Your task to perform on an android device: delete browsing data in the chrome app Image 0: 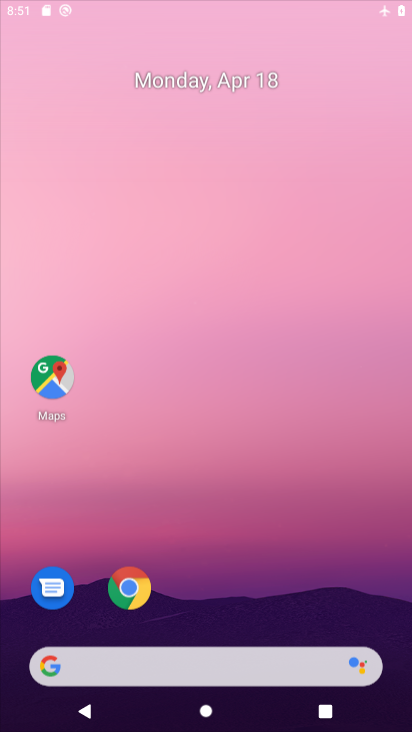
Step 0: drag from (291, 226) to (277, 100)
Your task to perform on an android device: delete browsing data in the chrome app Image 1: 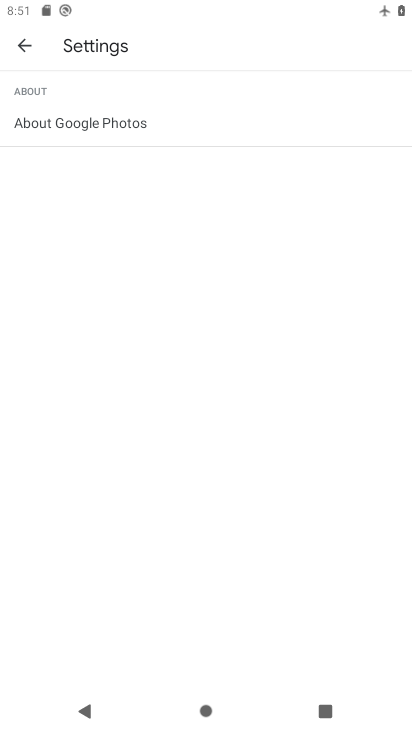
Step 1: press home button
Your task to perform on an android device: delete browsing data in the chrome app Image 2: 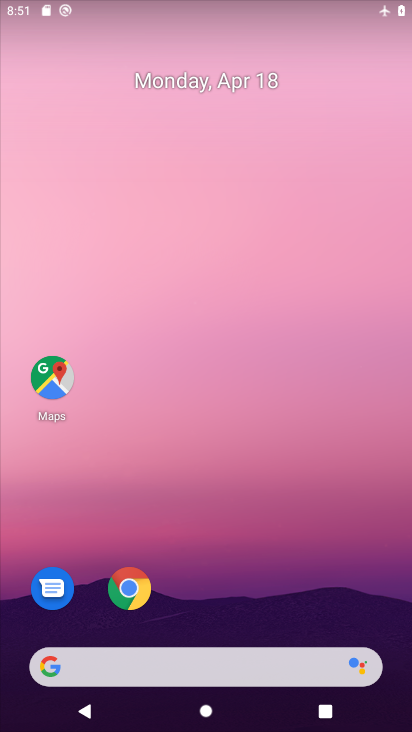
Step 2: drag from (241, 556) to (252, 84)
Your task to perform on an android device: delete browsing data in the chrome app Image 3: 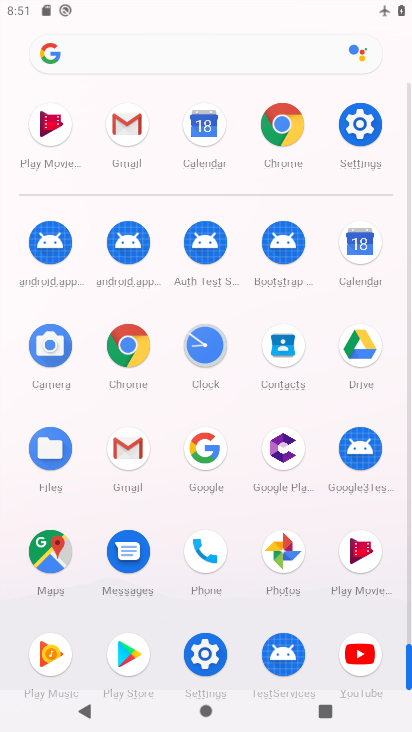
Step 3: click (127, 355)
Your task to perform on an android device: delete browsing data in the chrome app Image 4: 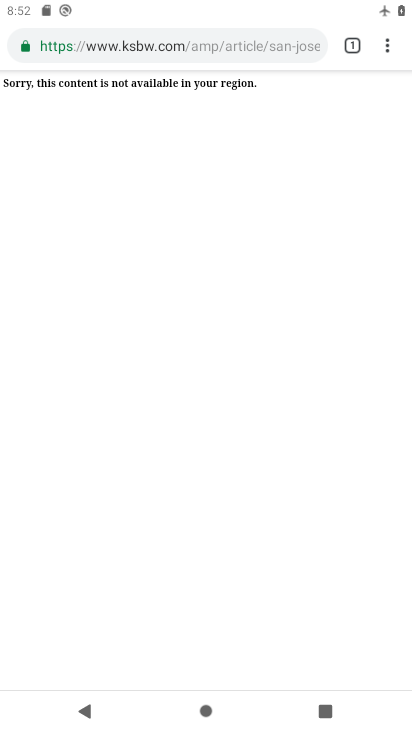
Step 4: press back button
Your task to perform on an android device: delete browsing data in the chrome app Image 5: 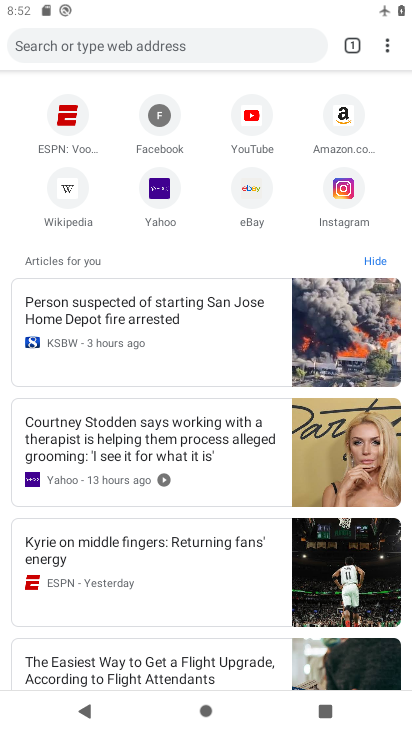
Step 5: click (387, 39)
Your task to perform on an android device: delete browsing data in the chrome app Image 6: 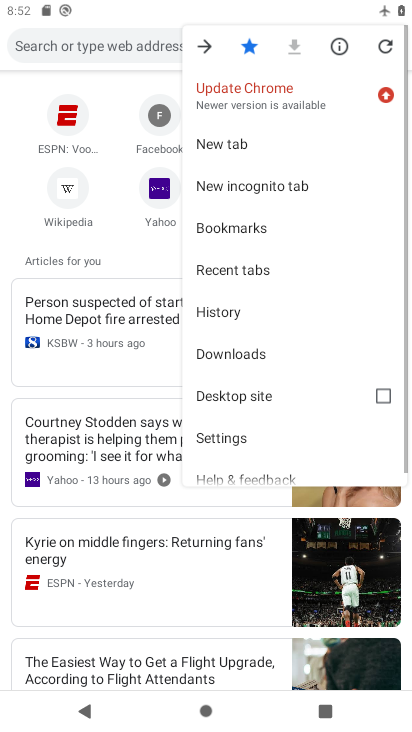
Step 6: click (247, 303)
Your task to perform on an android device: delete browsing data in the chrome app Image 7: 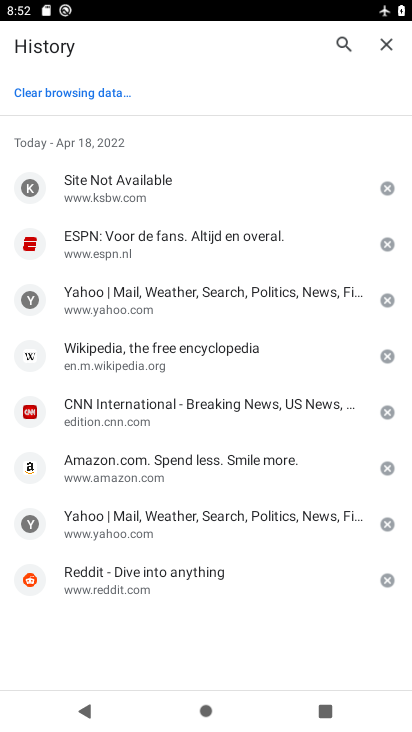
Step 7: click (61, 92)
Your task to perform on an android device: delete browsing data in the chrome app Image 8: 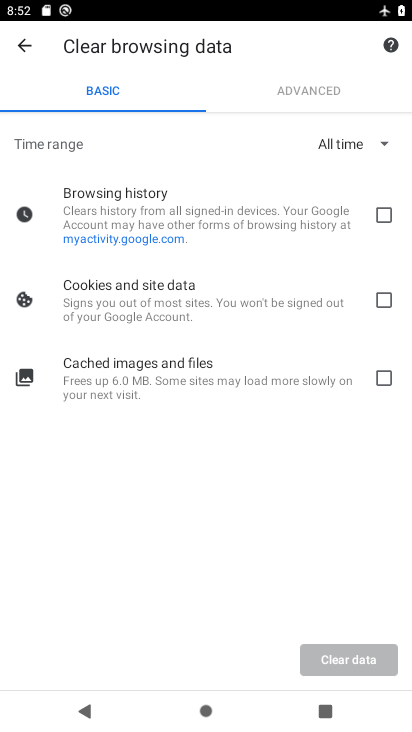
Step 8: click (339, 652)
Your task to perform on an android device: delete browsing data in the chrome app Image 9: 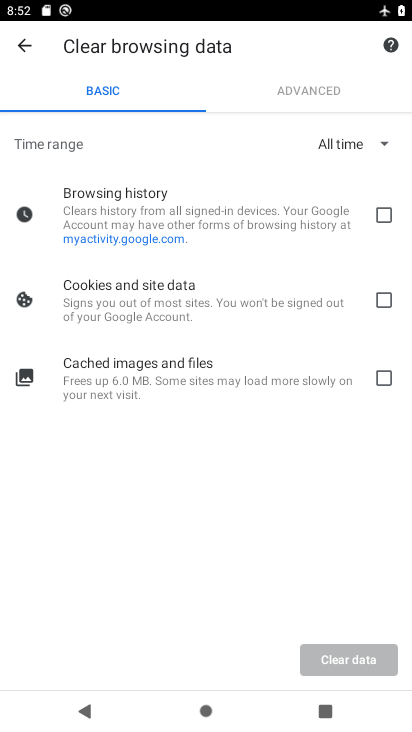
Step 9: click (343, 218)
Your task to perform on an android device: delete browsing data in the chrome app Image 10: 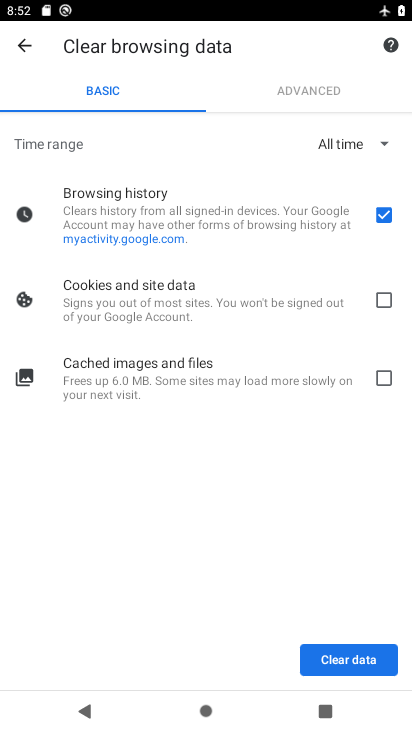
Step 10: click (343, 283)
Your task to perform on an android device: delete browsing data in the chrome app Image 11: 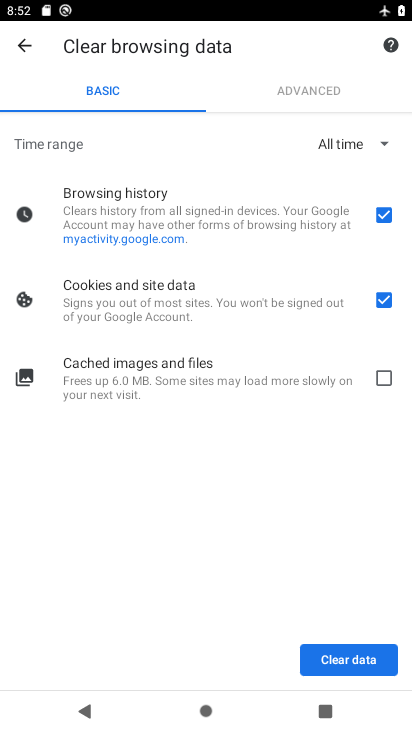
Step 11: click (335, 651)
Your task to perform on an android device: delete browsing data in the chrome app Image 12: 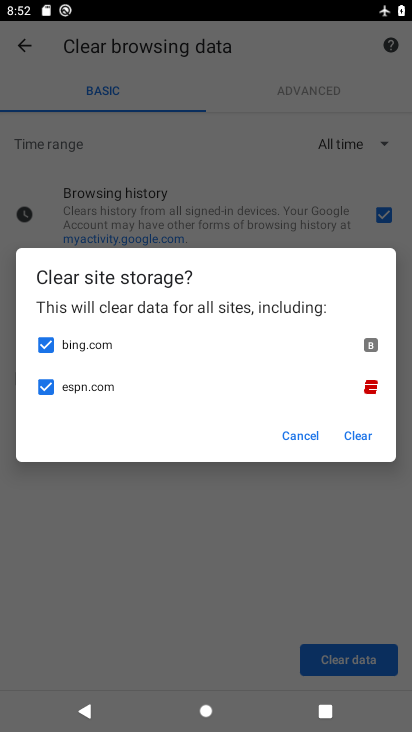
Step 12: click (372, 423)
Your task to perform on an android device: delete browsing data in the chrome app Image 13: 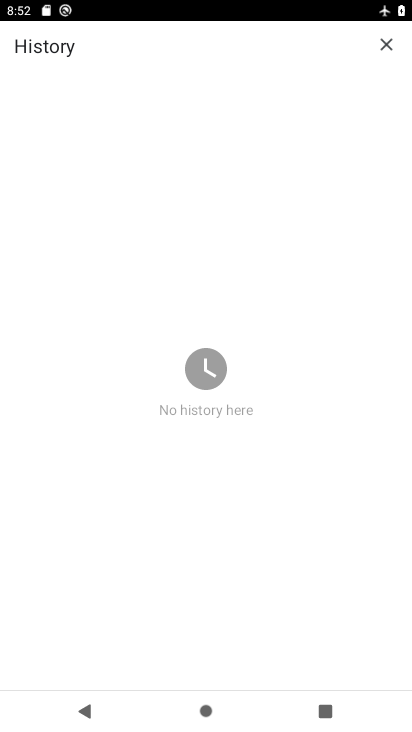
Step 13: task complete